Your task to perform on an android device: turn off wifi Image 0: 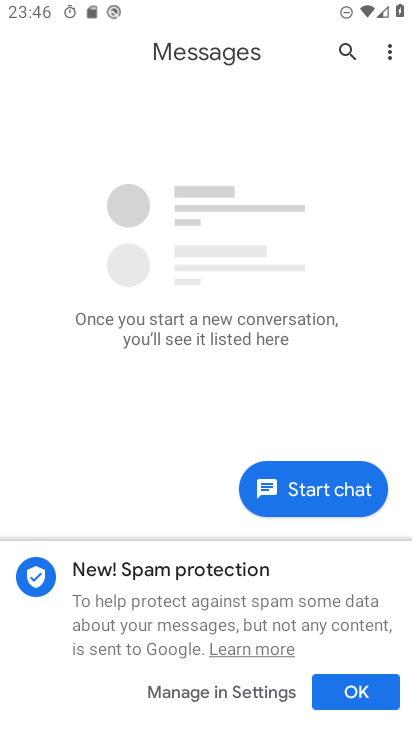
Step 0: press home button
Your task to perform on an android device: turn off wifi Image 1: 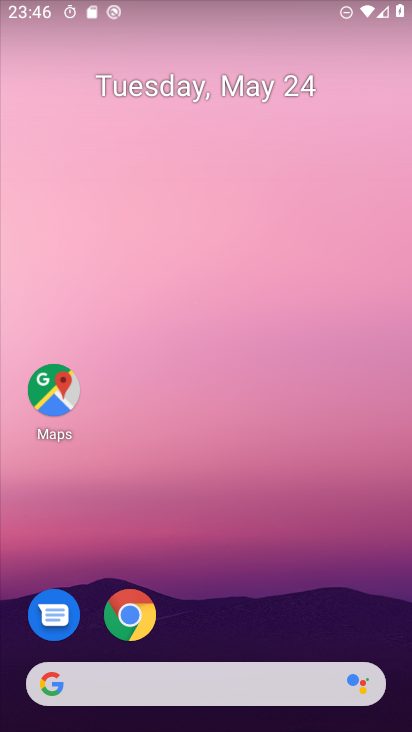
Step 1: drag from (231, 705) to (320, 0)
Your task to perform on an android device: turn off wifi Image 2: 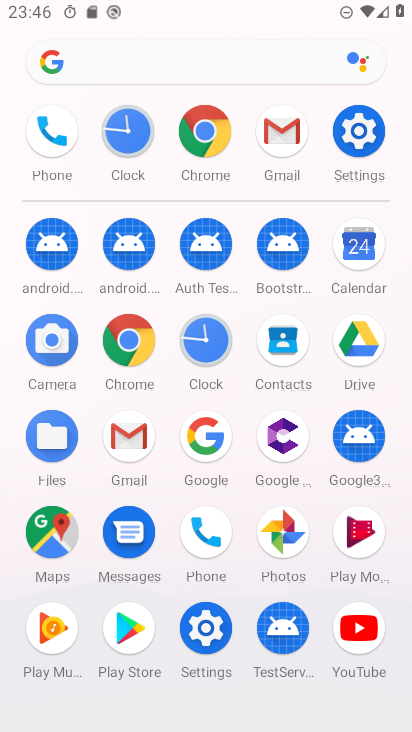
Step 2: click (351, 135)
Your task to perform on an android device: turn off wifi Image 3: 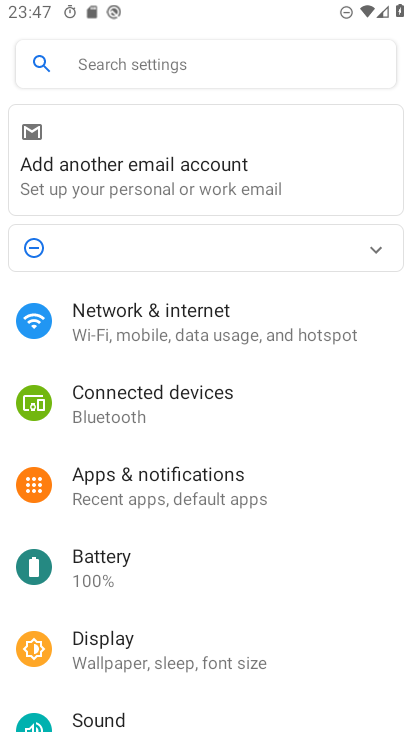
Step 3: click (160, 304)
Your task to perform on an android device: turn off wifi Image 4: 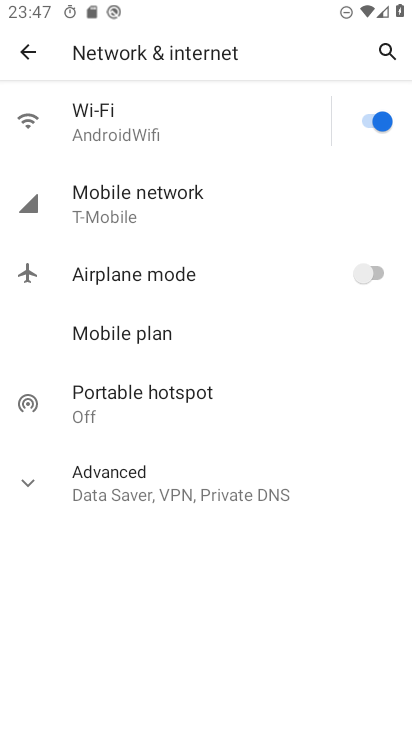
Step 4: click (385, 128)
Your task to perform on an android device: turn off wifi Image 5: 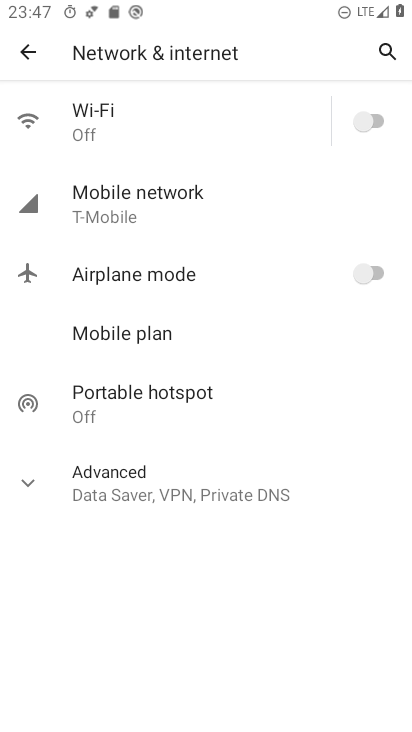
Step 5: task complete